Your task to perform on an android device: turn off location history Image 0: 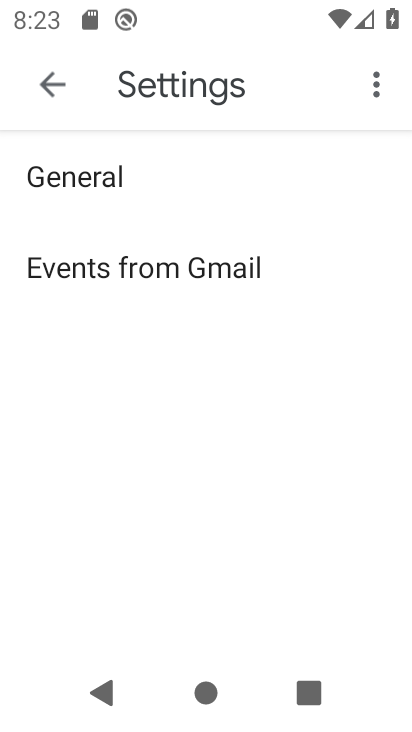
Step 0: press home button
Your task to perform on an android device: turn off location history Image 1: 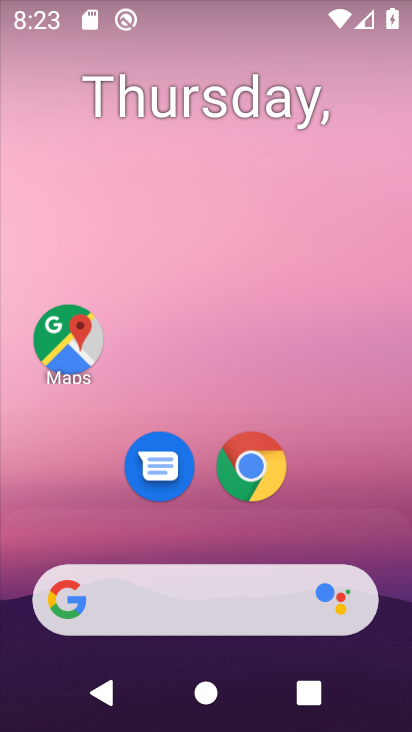
Step 1: drag from (179, 621) to (313, 87)
Your task to perform on an android device: turn off location history Image 2: 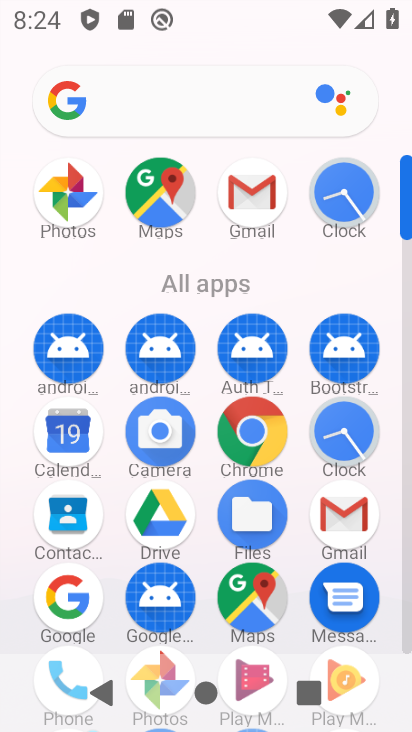
Step 2: click (249, 593)
Your task to perform on an android device: turn off location history Image 3: 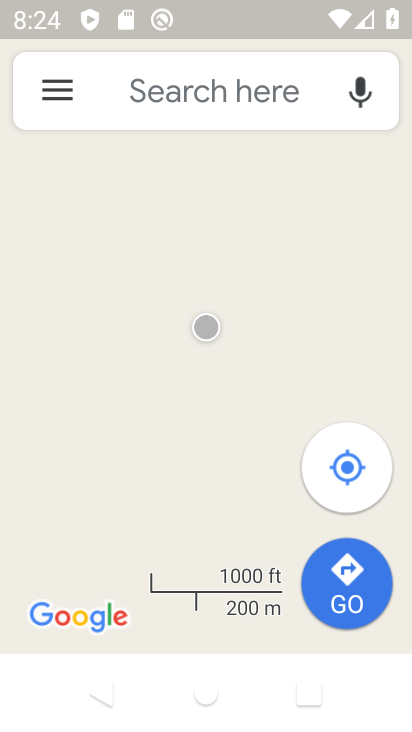
Step 3: click (56, 94)
Your task to perform on an android device: turn off location history Image 4: 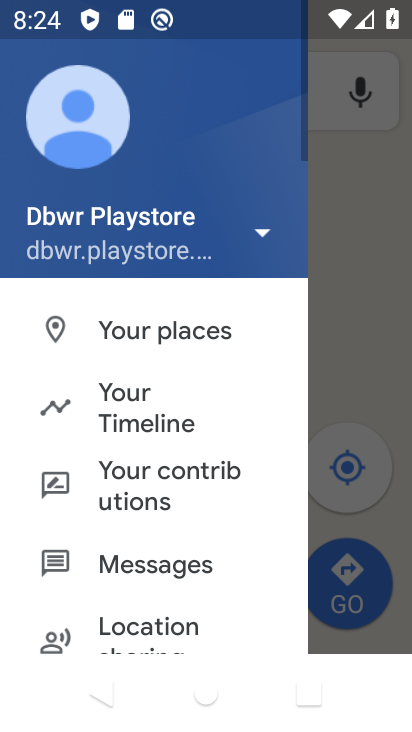
Step 4: click (138, 406)
Your task to perform on an android device: turn off location history Image 5: 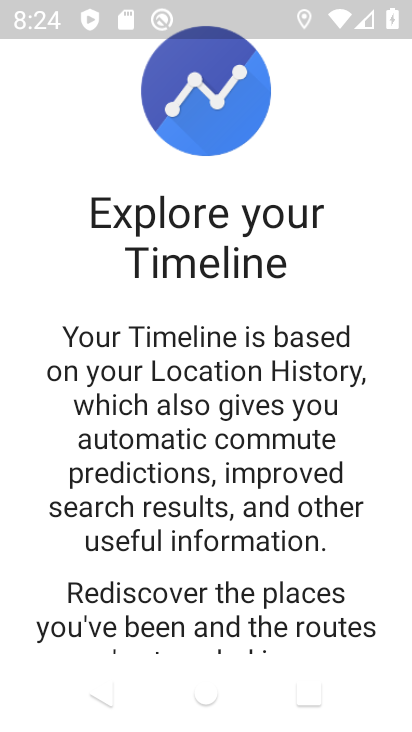
Step 5: drag from (196, 563) to (335, 60)
Your task to perform on an android device: turn off location history Image 6: 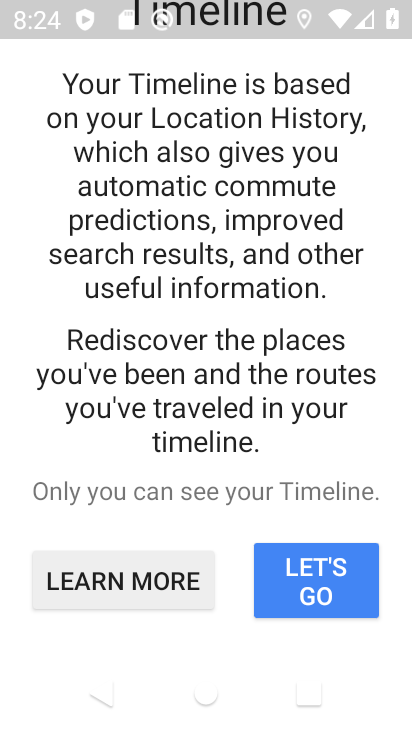
Step 6: click (323, 598)
Your task to perform on an android device: turn off location history Image 7: 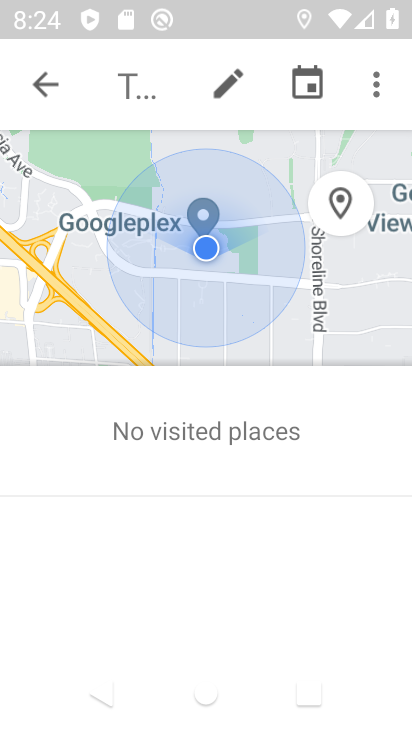
Step 7: click (375, 87)
Your task to perform on an android device: turn off location history Image 8: 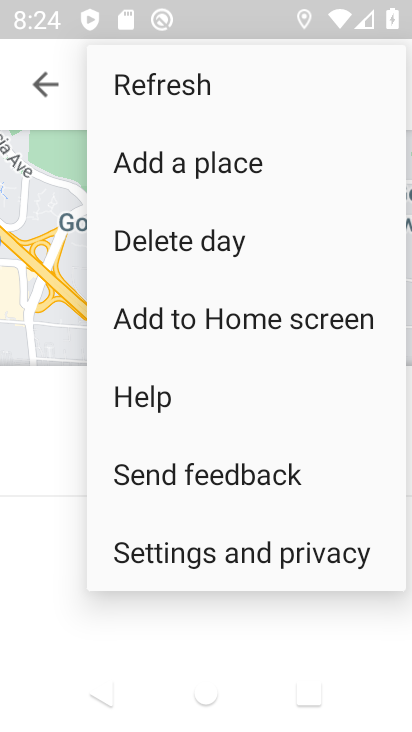
Step 8: click (247, 549)
Your task to perform on an android device: turn off location history Image 9: 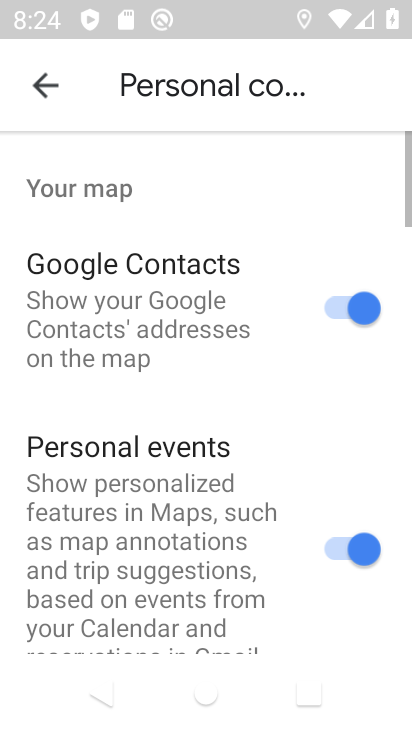
Step 9: drag from (199, 603) to (320, 116)
Your task to perform on an android device: turn off location history Image 10: 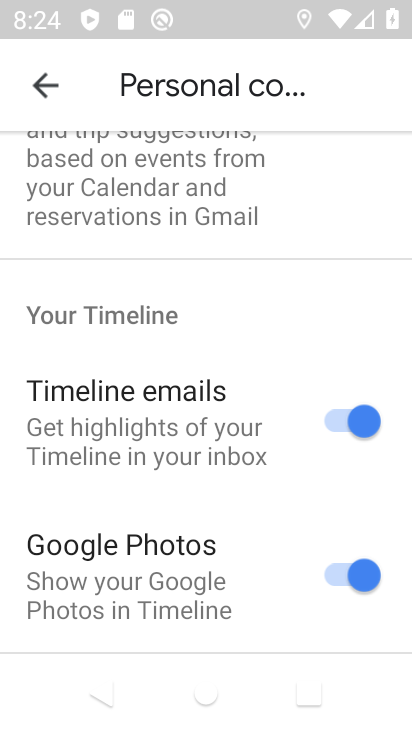
Step 10: drag from (195, 585) to (325, 130)
Your task to perform on an android device: turn off location history Image 11: 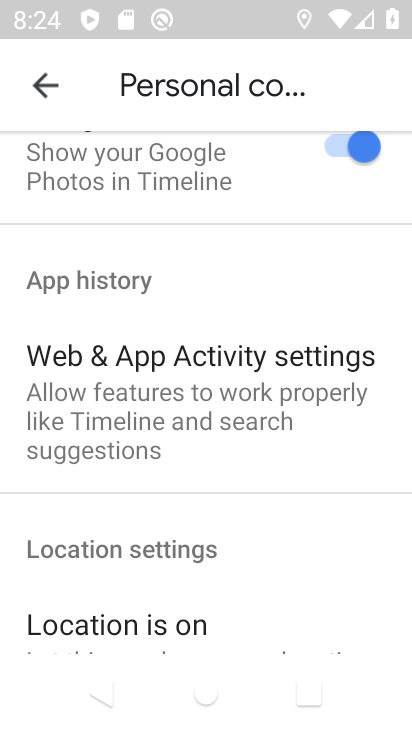
Step 11: drag from (224, 559) to (345, 139)
Your task to perform on an android device: turn off location history Image 12: 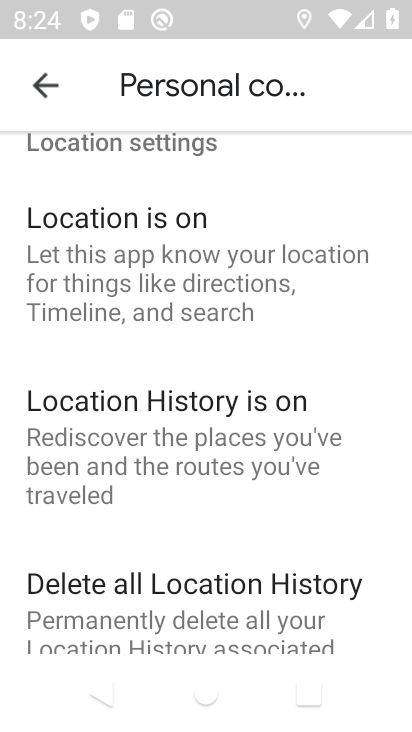
Step 12: click (176, 425)
Your task to perform on an android device: turn off location history Image 13: 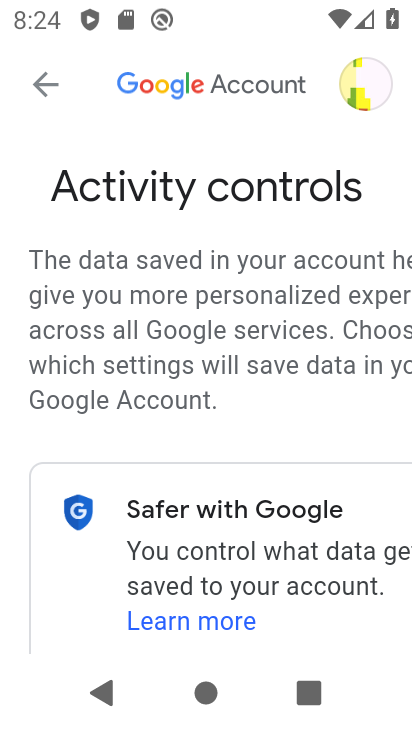
Step 13: drag from (251, 604) to (361, 62)
Your task to perform on an android device: turn off location history Image 14: 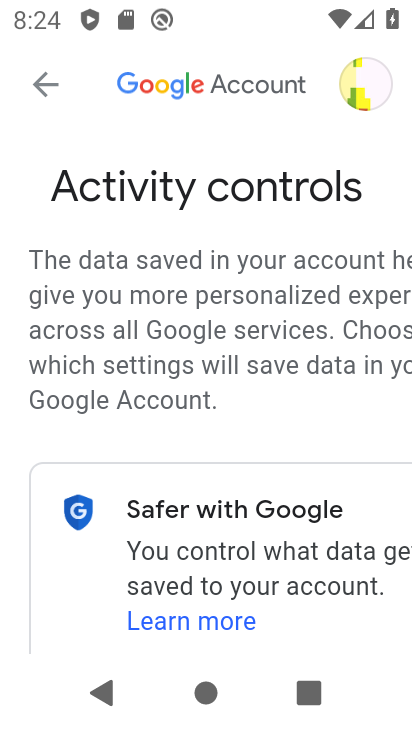
Step 14: drag from (226, 468) to (348, 67)
Your task to perform on an android device: turn off location history Image 15: 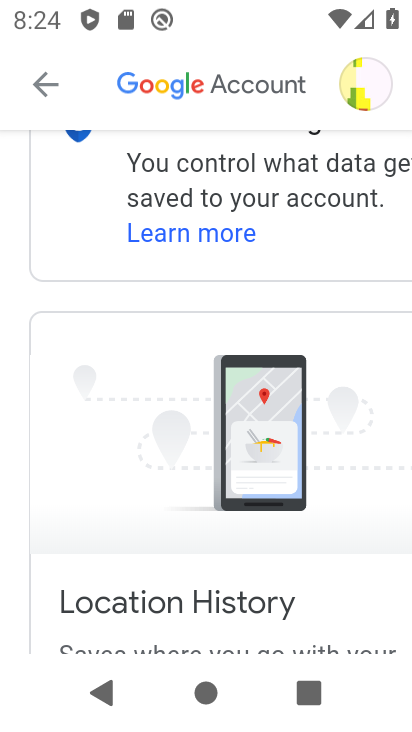
Step 15: drag from (153, 548) to (299, 64)
Your task to perform on an android device: turn off location history Image 16: 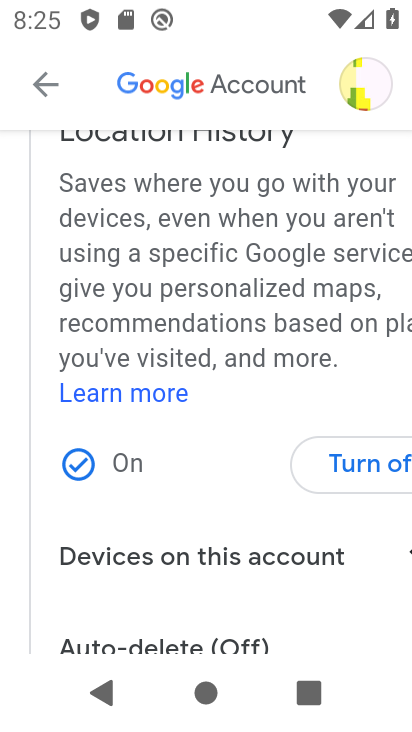
Step 16: click (376, 471)
Your task to perform on an android device: turn off location history Image 17: 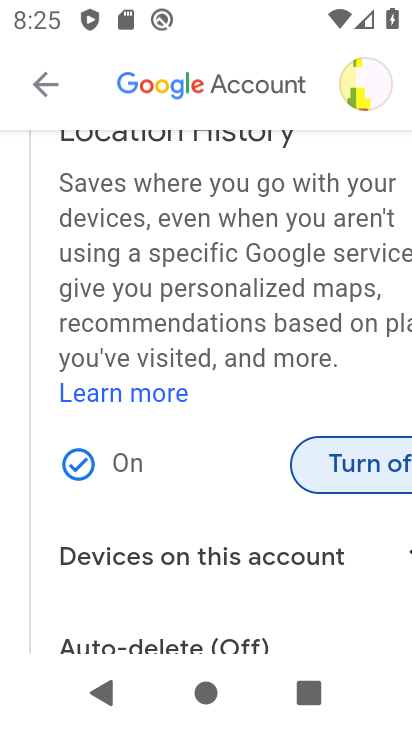
Step 17: click (373, 466)
Your task to perform on an android device: turn off location history Image 18: 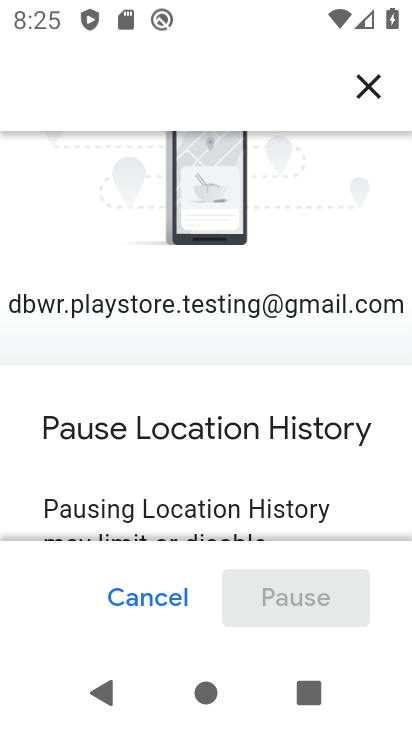
Step 18: drag from (263, 490) to (375, 48)
Your task to perform on an android device: turn off location history Image 19: 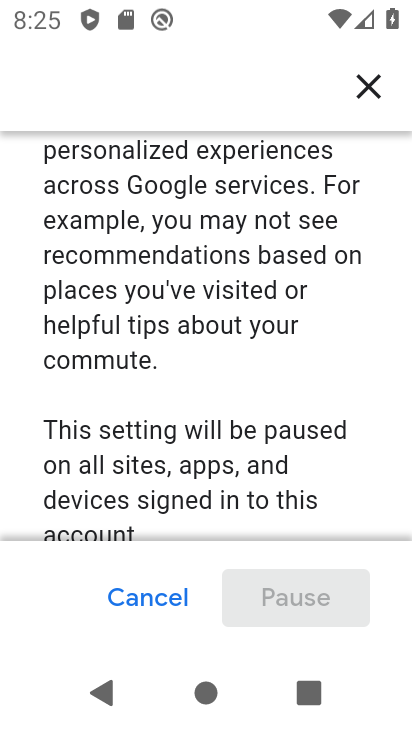
Step 19: drag from (228, 464) to (322, 100)
Your task to perform on an android device: turn off location history Image 20: 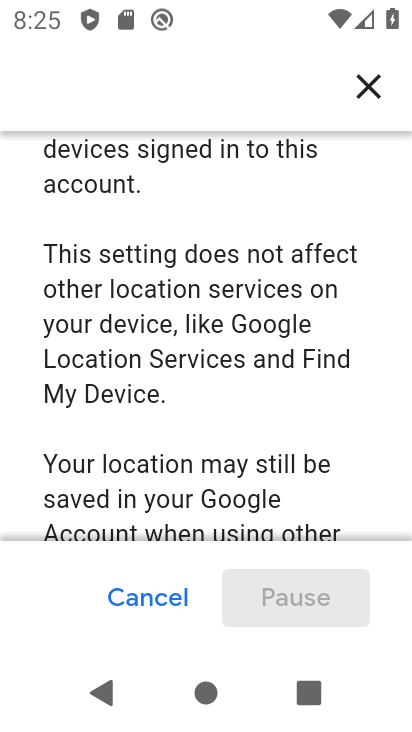
Step 20: drag from (226, 479) to (337, 40)
Your task to perform on an android device: turn off location history Image 21: 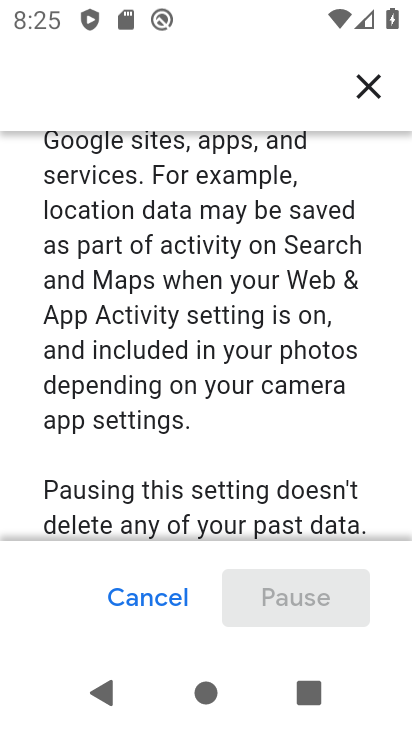
Step 21: drag from (264, 499) to (361, 51)
Your task to perform on an android device: turn off location history Image 22: 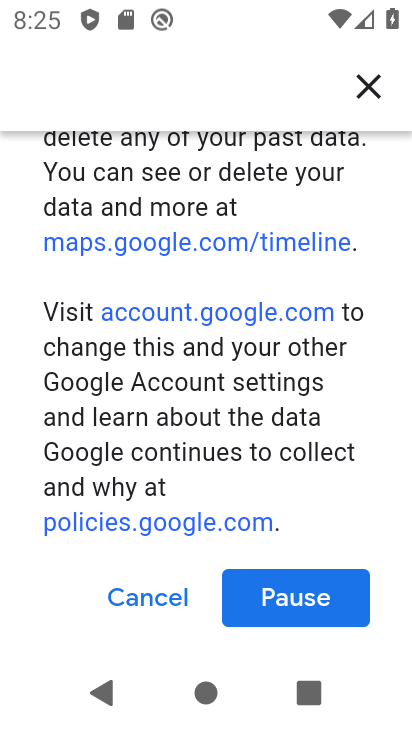
Step 22: click (303, 600)
Your task to perform on an android device: turn off location history Image 23: 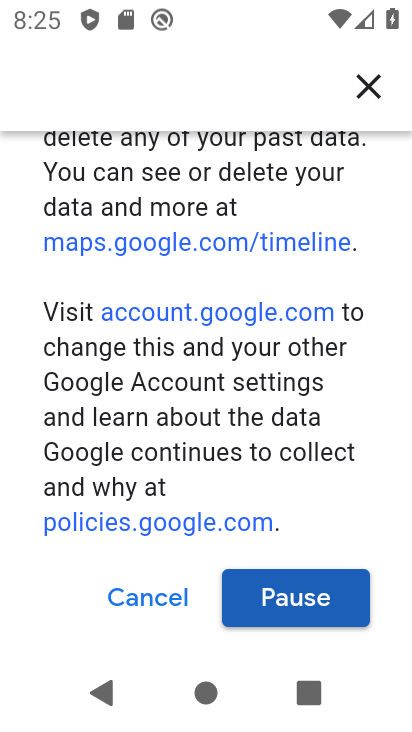
Step 23: click (298, 595)
Your task to perform on an android device: turn off location history Image 24: 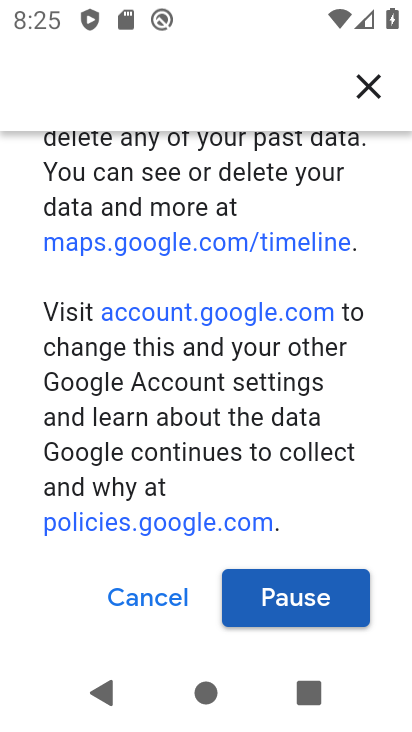
Step 24: click (303, 597)
Your task to perform on an android device: turn off location history Image 25: 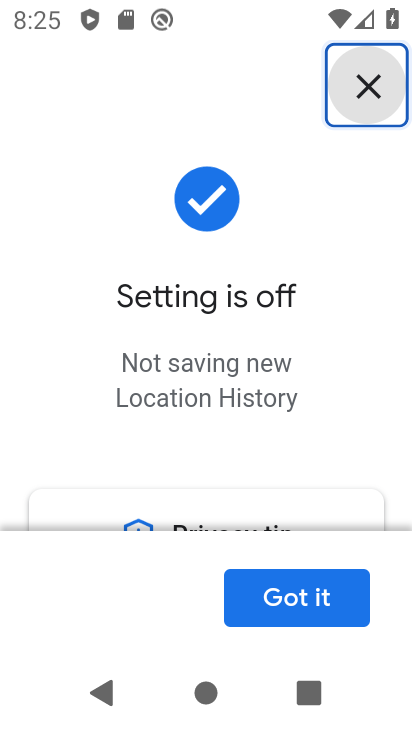
Step 25: click (288, 600)
Your task to perform on an android device: turn off location history Image 26: 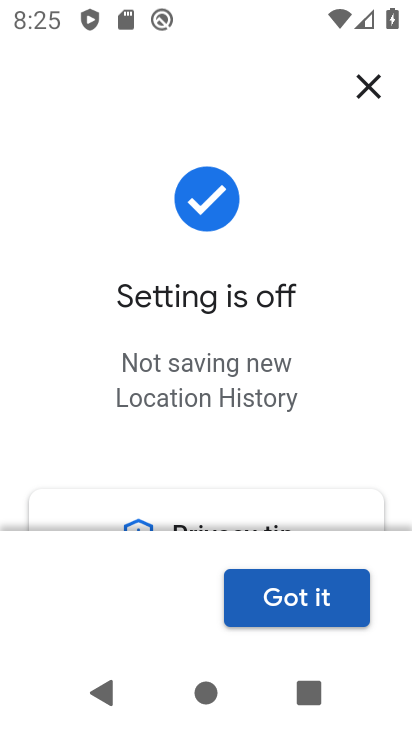
Step 26: click (304, 602)
Your task to perform on an android device: turn off location history Image 27: 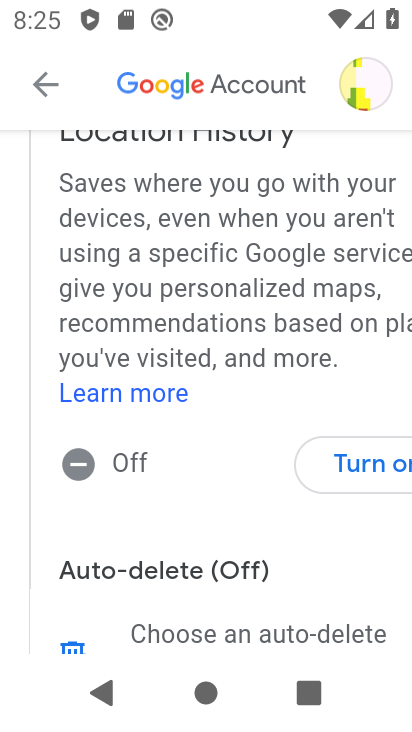
Step 27: task complete